Your task to perform on an android device: Open the phone app and click the voicemail tab. Image 0: 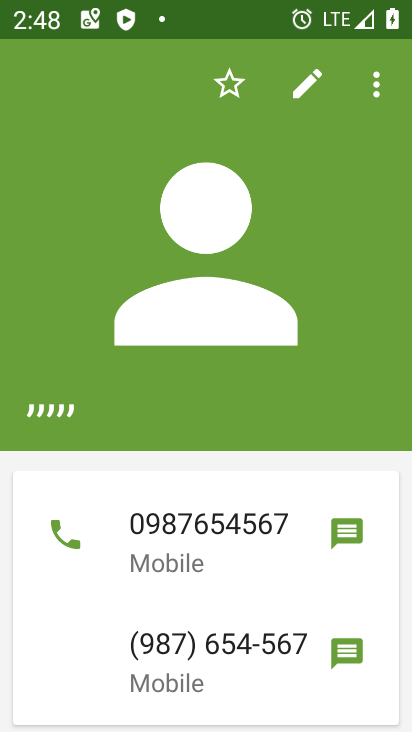
Step 0: press home button
Your task to perform on an android device: Open the phone app and click the voicemail tab. Image 1: 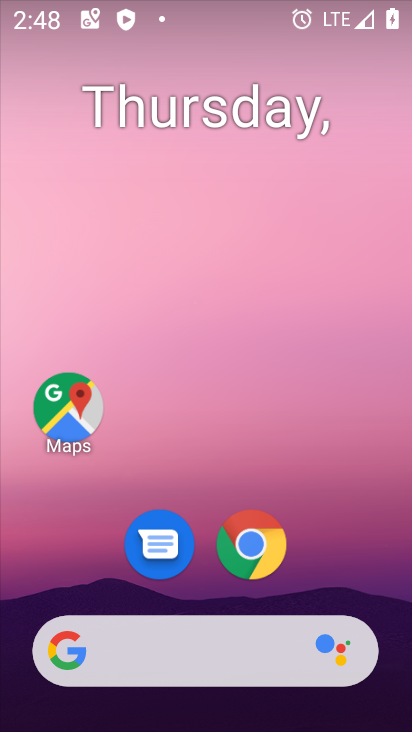
Step 1: drag from (326, 579) to (299, 233)
Your task to perform on an android device: Open the phone app and click the voicemail tab. Image 2: 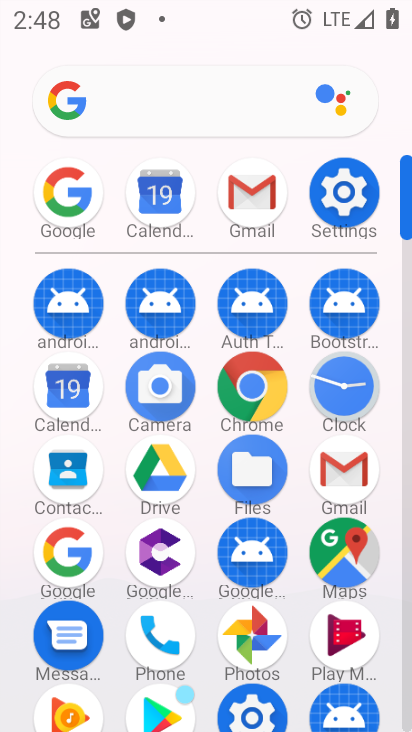
Step 2: click (150, 624)
Your task to perform on an android device: Open the phone app and click the voicemail tab. Image 3: 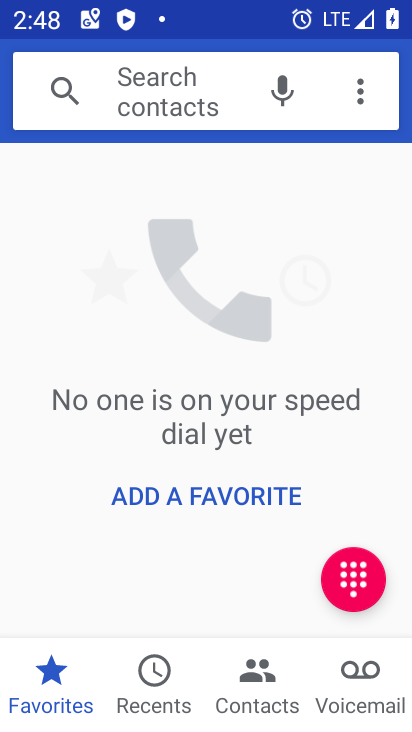
Step 3: click (354, 680)
Your task to perform on an android device: Open the phone app and click the voicemail tab. Image 4: 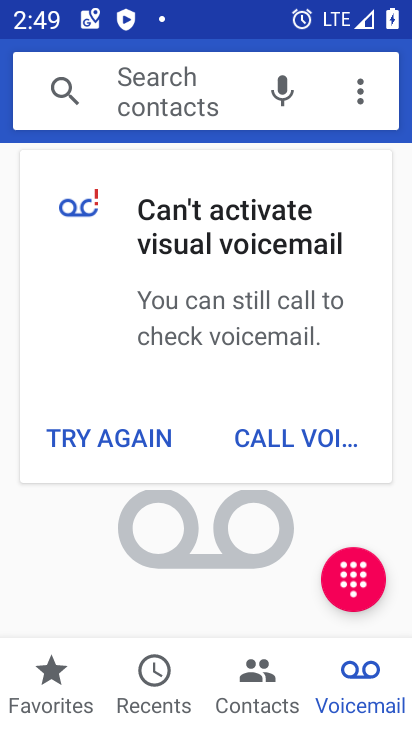
Step 4: task complete